Your task to perform on an android device: check out phone information Image 0: 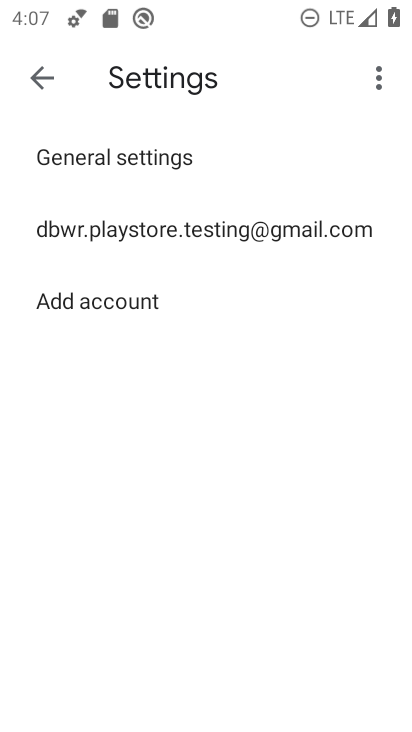
Step 0: press home button
Your task to perform on an android device: check out phone information Image 1: 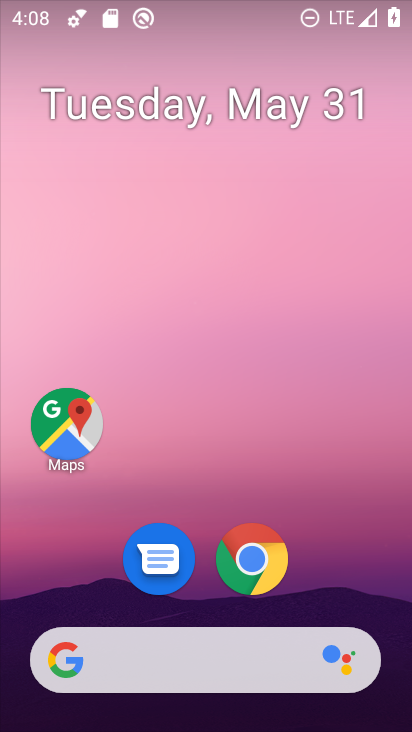
Step 1: drag from (204, 720) to (219, 109)
Your task to perform on an android device: check out phone information Image 2: 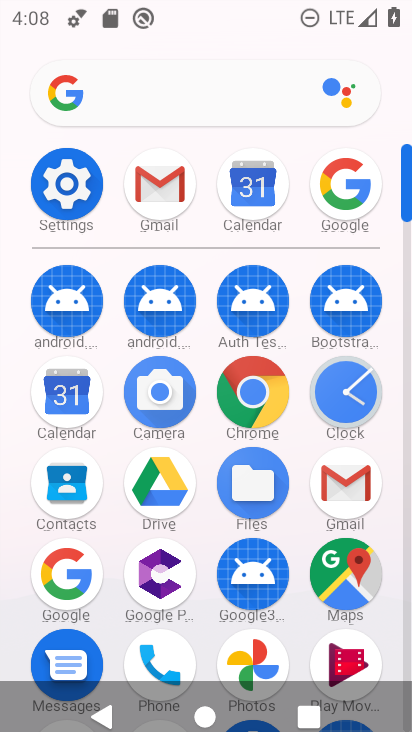
Step 2: click (67, 190)
Your task to perform on an android device: check out phone information Image 3: 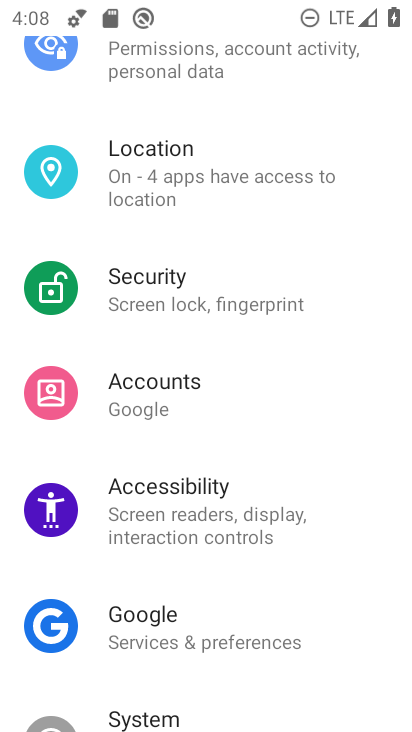
Step 3: drag from (207, 671) to (228, 196)
Your task to perform on an android device: check out phone information Image 4: 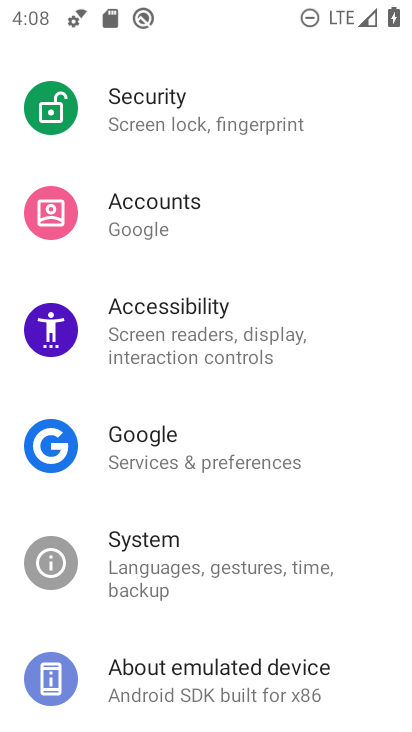
Step 4: click (236, 671)
Your task to perform on an android device: check out phone information Image 5: 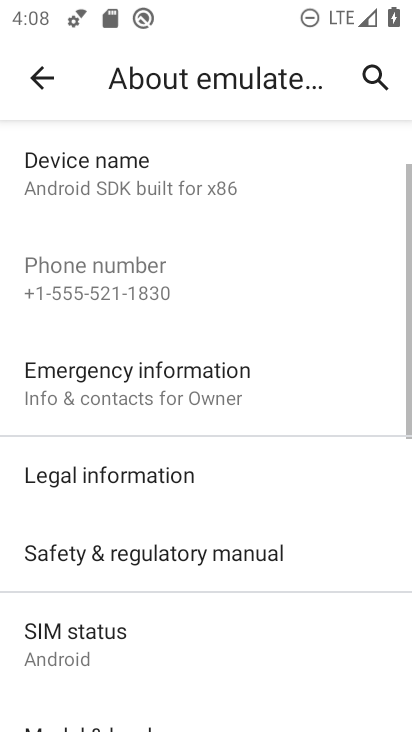
Step 5: task complete